Your task to perform on an android device: Check the news Image 0: 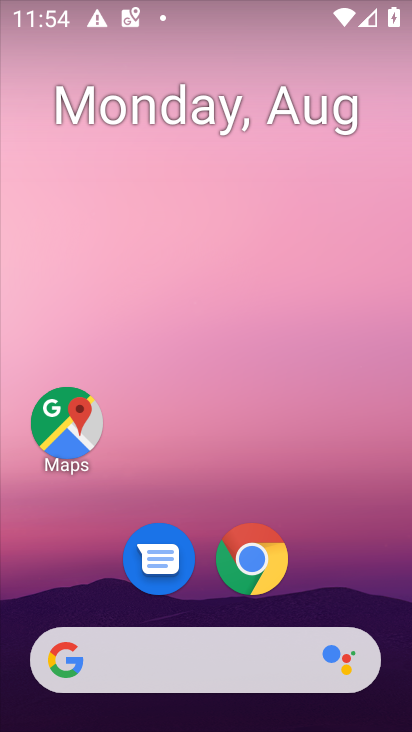
Step 0: drag from (197, 582) to (188, 126)
Your task to perform on an android device: Check the news Image 1: 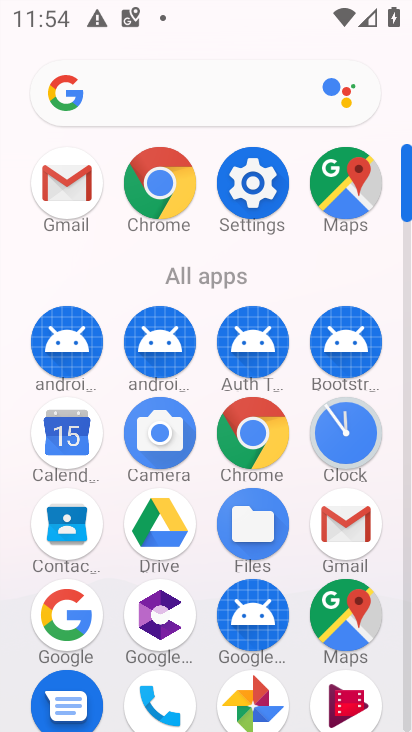
Step 1: click (204, 89)
Your task to perform on an android device: Check the news Image 2: 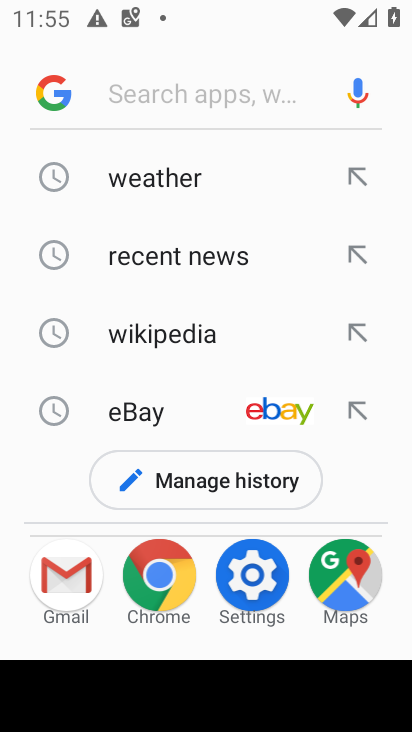
Step 2: type ""
Your task to perform on an android device: Check the news Image 3: 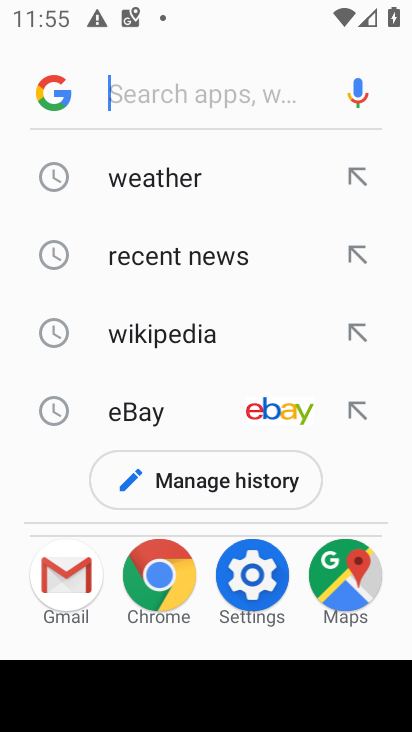
Step 3: type "news"
Your task to perform on an android device: Check the news Image 4: 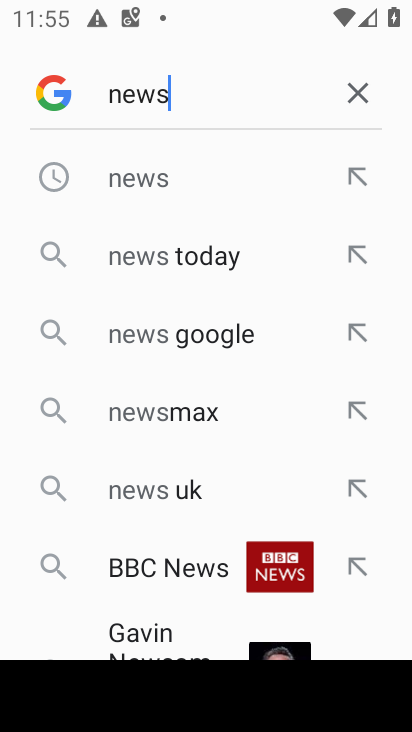
Step 4: click (132, 180)
Your task to perform on an android device: Check the news Image 5: 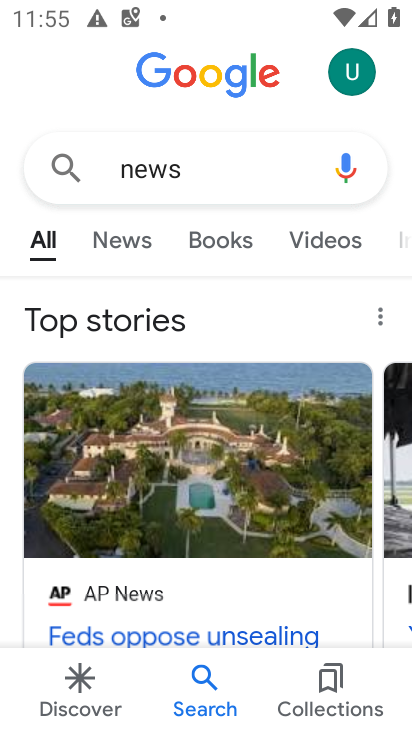
Step 5: task complete